Your task to perform on an android device: toggle notifications settings in the gmail app Image 0: 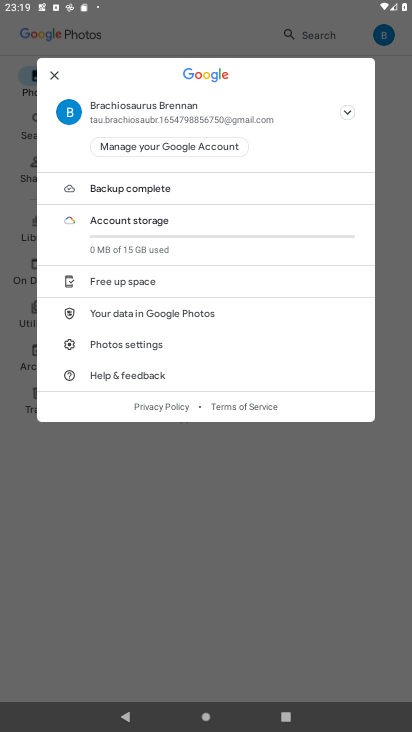
Step 0: press home button
Your task to perform on an android device: toggle notifications settings in the gmail app Image 1: 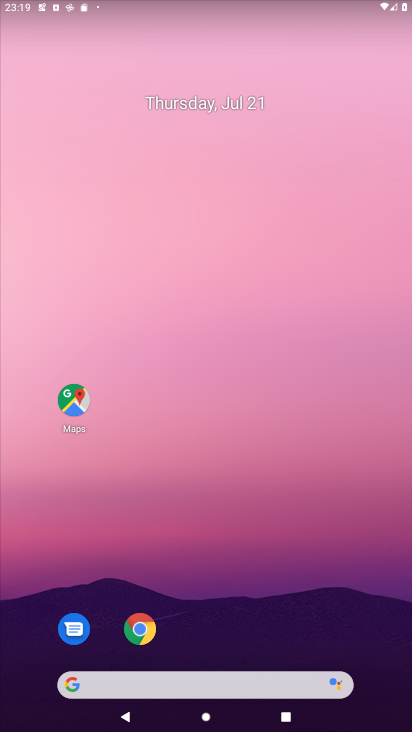
Step 1: drag from (265, 554) to (321, 222)
Your task to perform on an android device: toggle notifications settings in the gmail app Image 2: 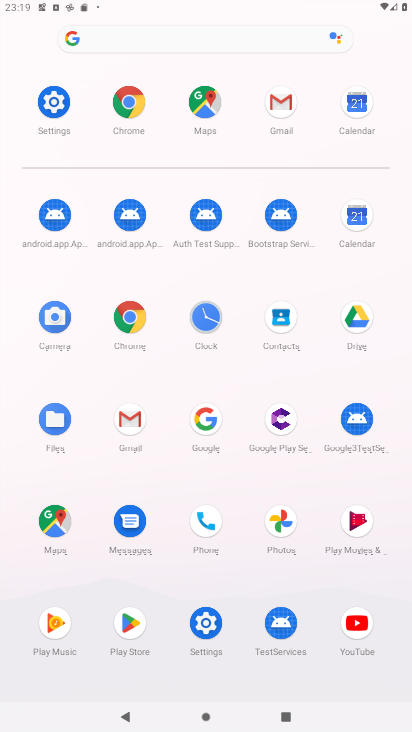
Step 2: click (123, 443)
Your task to perform on an android device: toggle notifications settings in the gmail app Image 3: 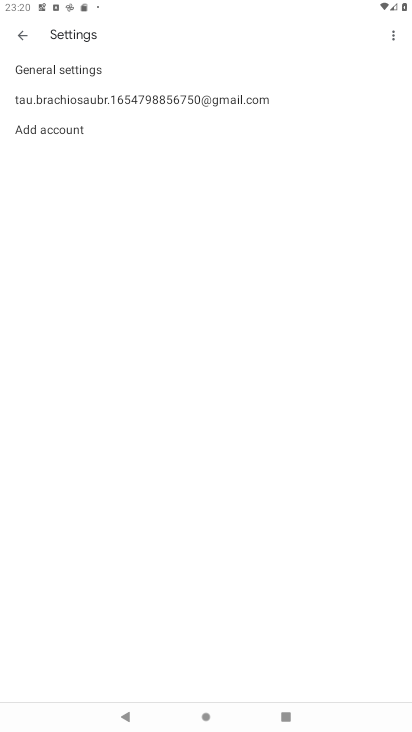
Step 3: click (177, 100)
Your task to perform on an android device: toggle notifications settings in the gmail app Image 4: 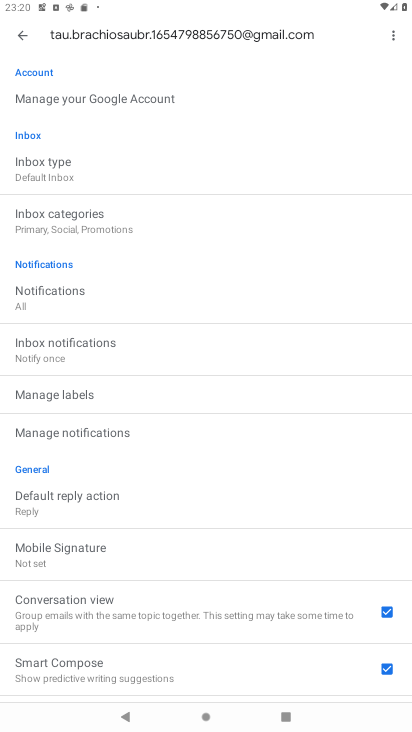
Step 4: click (139, 431)
Your task to perform on an android device: toggle notifications settings in the gmail app Image 5: 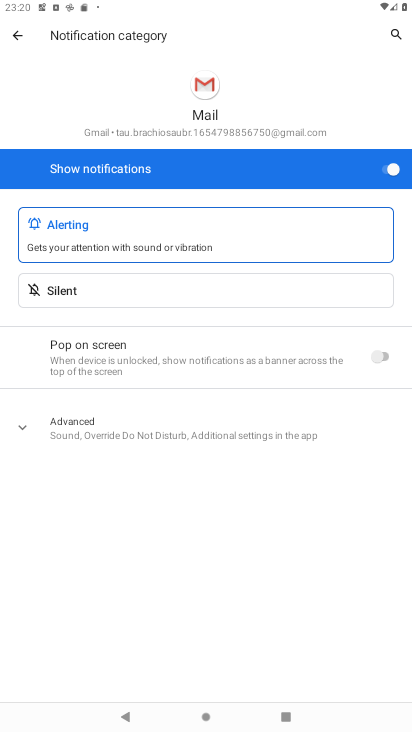
Step 5: click (380, 177)
Your task to perform on an android device: toggle notifications settings in the gmail app Image 6: 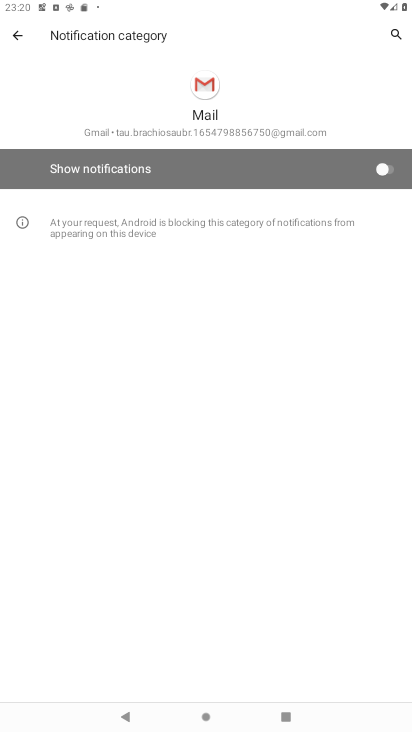
Step 6: task complete